Your task to perform on an android device: toggle notifications settings in the gmail app Image 0: 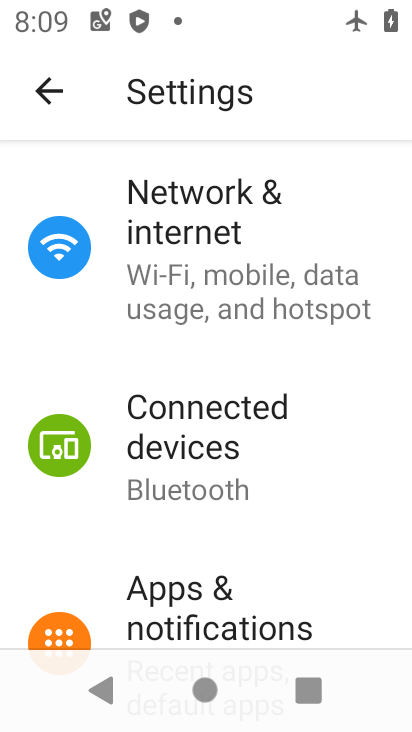
Step 0: press home button
Your task to perform on an android device: toggle notifications settings in the gmail app Image 1: 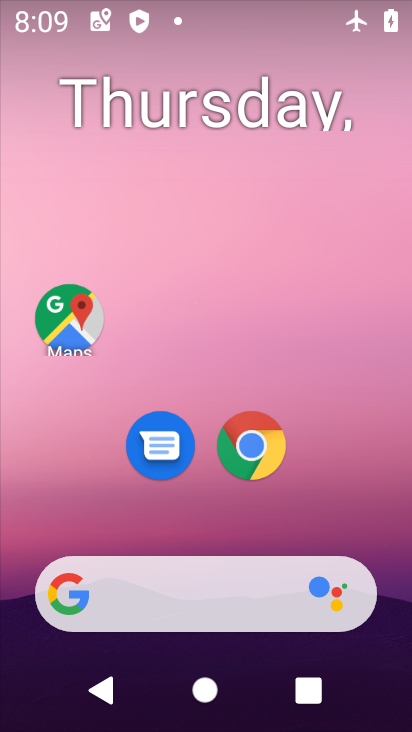
Step 1: drag from (377, 525) to (278, 65)
Your task to perform on an android device: toggle notifications settings in the gmail app Image 2: 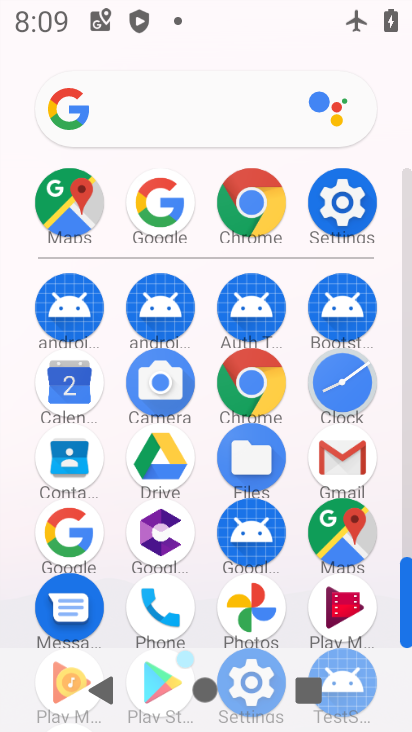
Step 2: click (346, 471)
Your task to perform on an android device: toggle notifications settings in the gmail app Image 3: 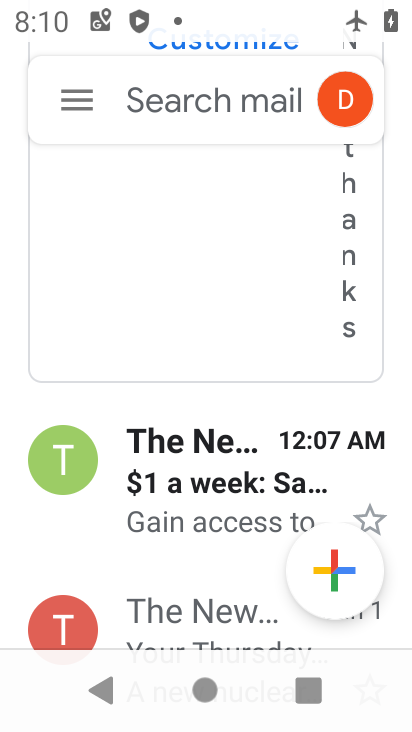
Step 3: click (67, 112)
Your task to perform on an android device: toggle notifications settings in the gmail app Image 4: 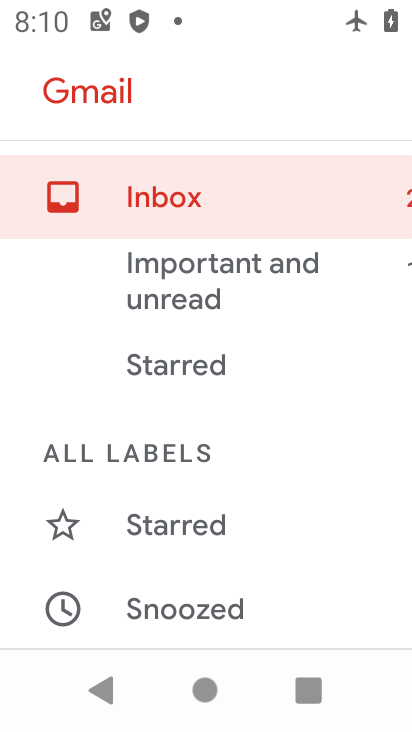
Step 4: drag from (132, 609) to (149, 446)
Your task to perform on an android device: toggle notifications settings in the gmail app Image 5: 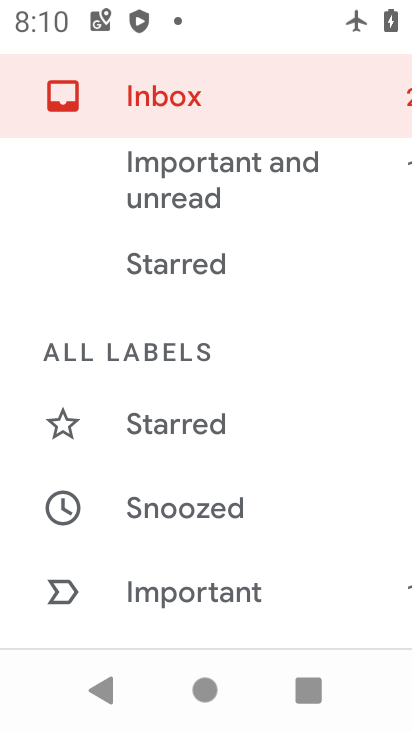
Step 5: drag from (150, 337) to (159, 121)
Your task to perform on an android device: toggle notifications settings in the gmail app Image 6: 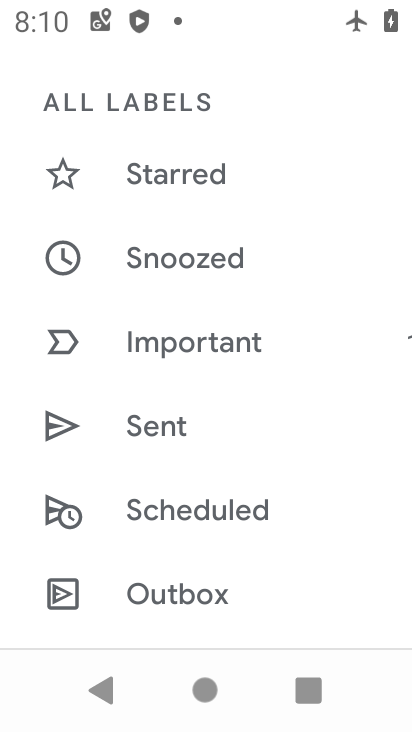
Step 6: click (189, 555)
Your task to perform on an android device: toggle notifications settings in the gmail app Image 7: 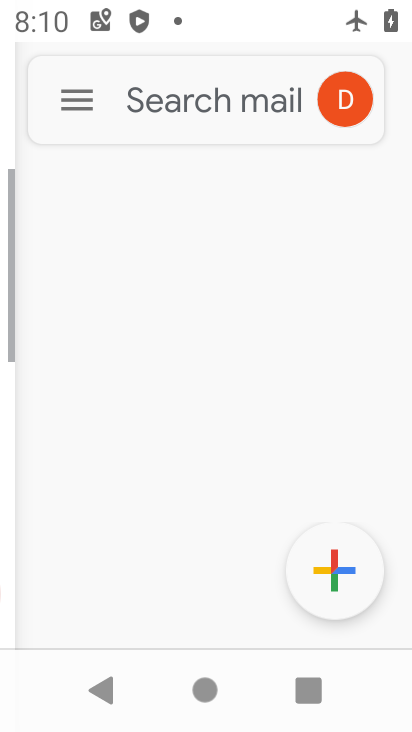
Step 7: drag from (227, 255) to (214, 161)
Your task to perform on an android device: toggle notifications settings in the gmail app Image 8: 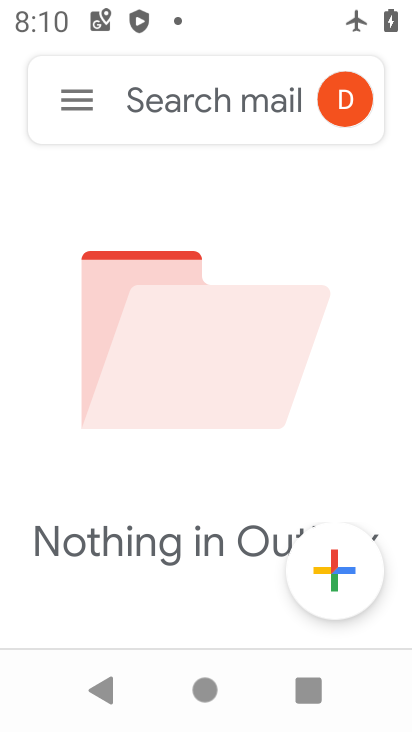
Step 8: click (50, 90)
Your task to perform on an android device: toggle notifications settings in the gmail app Image 9: 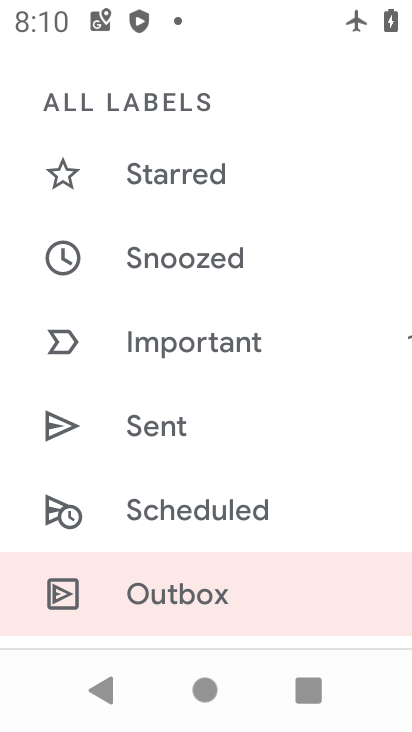
Step 9: drag from (191, 614) to (243, 5)
Your task to perform on an android device: toggle notifications settings in the gmail app Image 10: 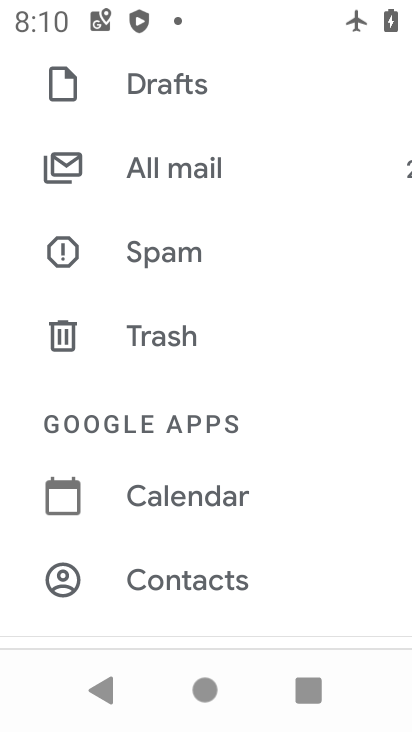
Step 10: drag from (184, 592) to (256, 87)
Your task to perform on an android device: toggle notifications settings in the gmail app Image 11: 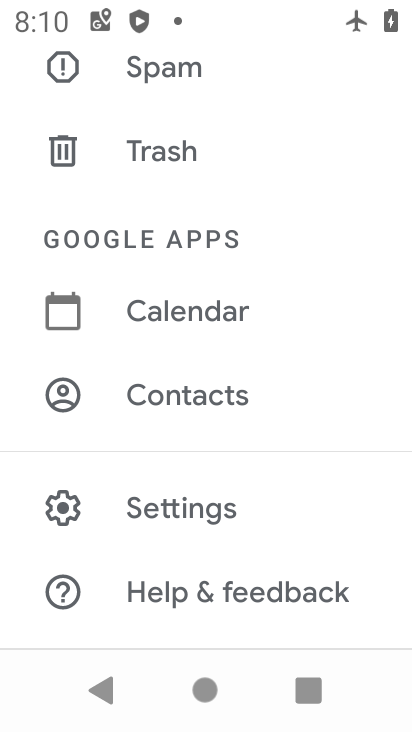
Step 11: click (208, 510)
Your task to perform on an android device: toggle notifications settings in the gmail app Image 12: 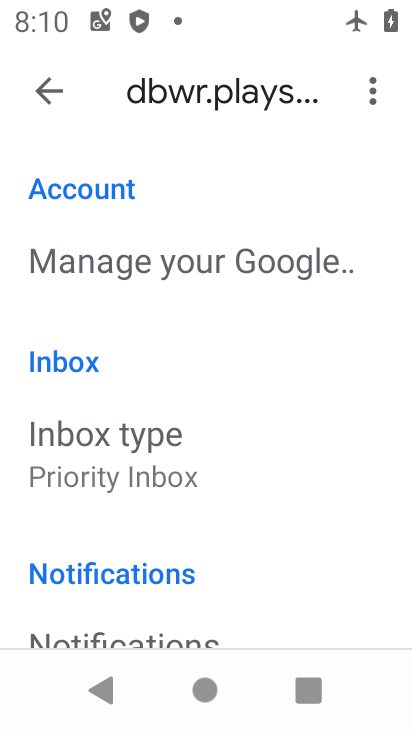
Step 12: click (201, 637)
Your task to perform on an android device: toggle notifications settings in the gmail app Image 13: 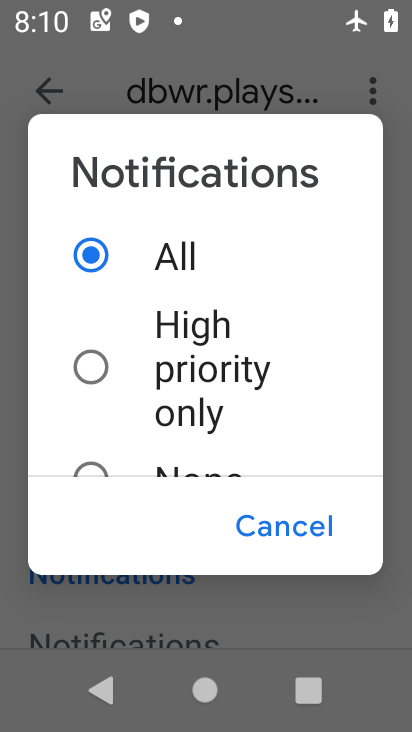
Step 13: click (83, 462)
Your task to perform on an android device: toggle notifications settings in the gmail app Image 14: 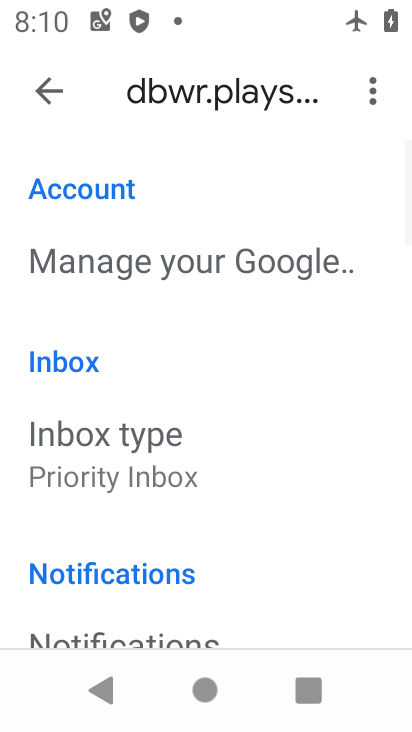
Step 14: task complete